Your task to perform on an android device: Open calendar and show me the first week of next month Image 0: 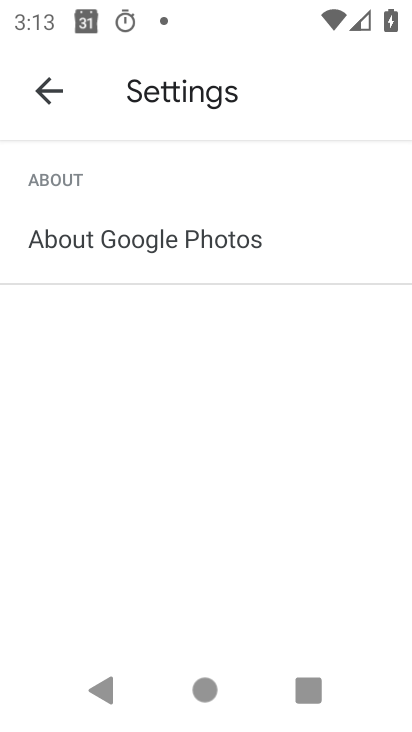
Step 0: press home button
Your task to perform on an android device: Open calendar and show me the first week of next month Image 1: 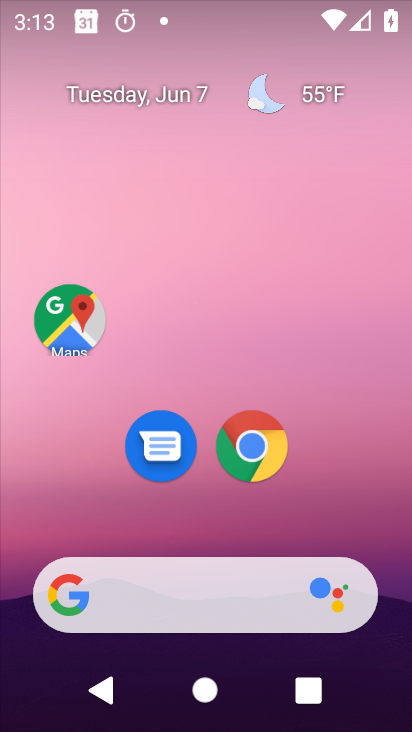
Step 1: drag from (206, 515) to (202, 11)
Your task to perform on an android device: Open calendar and show me the first week of next month Image 2: 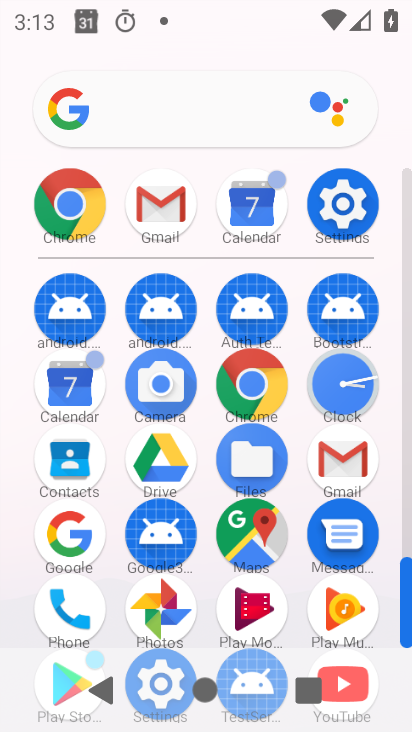
Step 2: click (74, 383)
Your task to perform on an android device: Open calendar and show me the first week of next month Image 3: 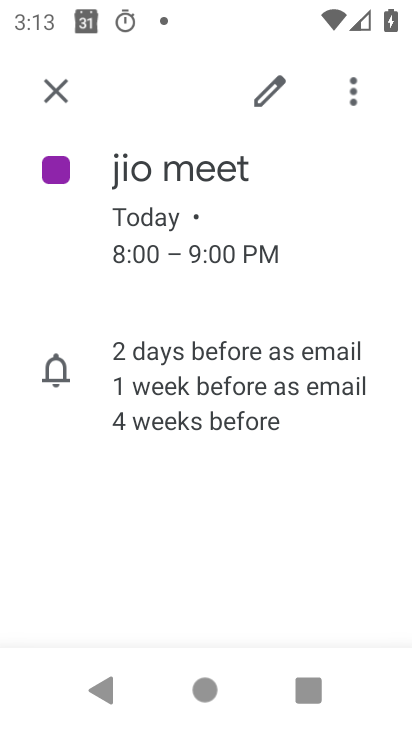
Step 3: click (45, 91)
Your task to perform on an android device: Open calendar and show me the first week of next month Image 4: 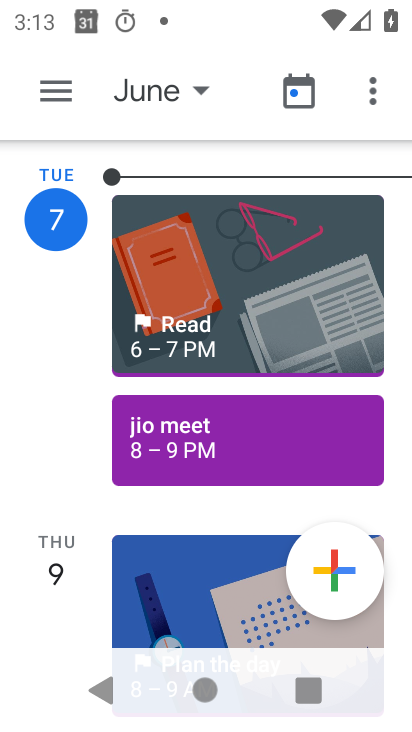
Step 4: click (46, 98)
Your task to perform on an android device: Open calendar and show me the first week of next month Image 5: 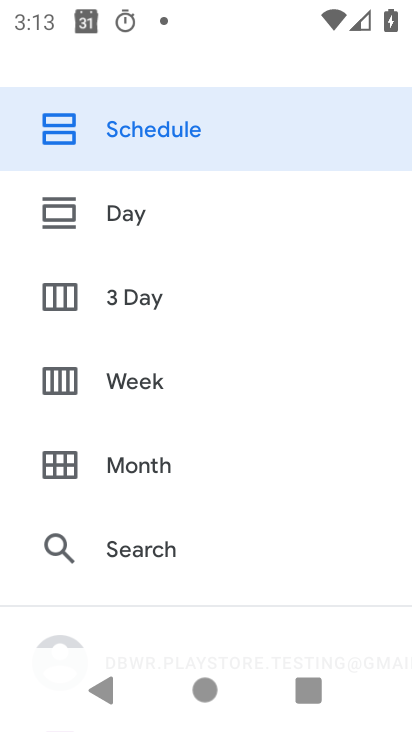
Step 5: click (152, 393)
Your task to perform on an android device: Open calendar and show me the first week of next month Image 6: 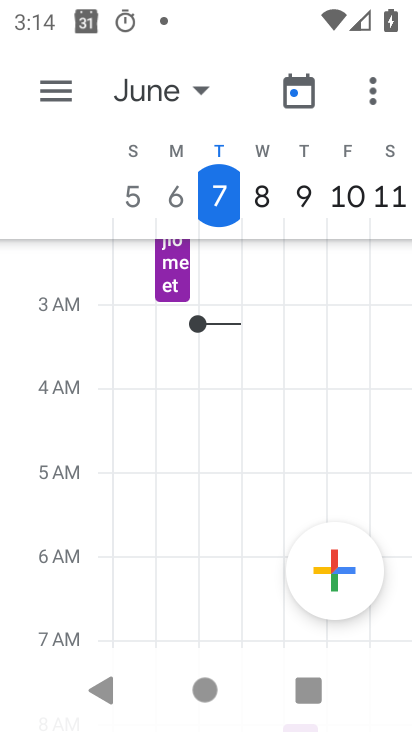
Step 6: click (185, 83)
Your task to perform on an android device: Open calendar and show me the first week of next month Image 7: 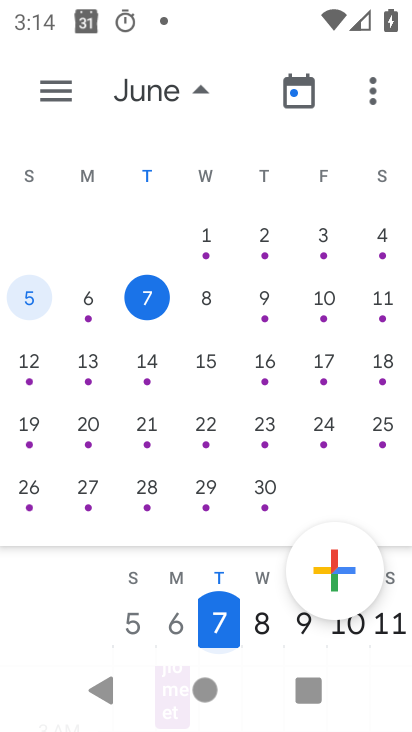
Step 7: drag from (326, 294) to (0, 250)
Your task to perform on an android device: Open calendar and show me the first week of next month Image 8: 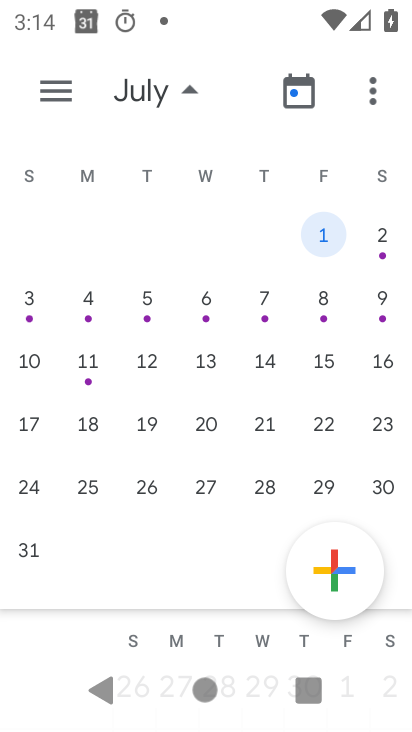
Step 8: click (30, 304)
Your task to perform on an android device: Open calendar and show me the first week of next month Image 9: 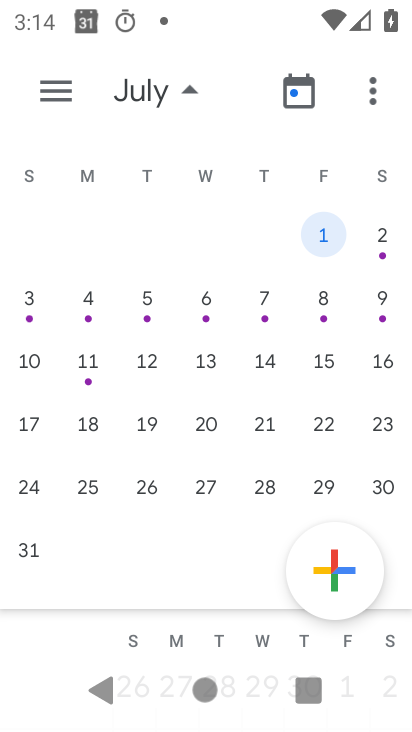
Step 9: click (35, 302)
Your task to perform on an android device: Open calendar and show me the first week of next month Image 10: 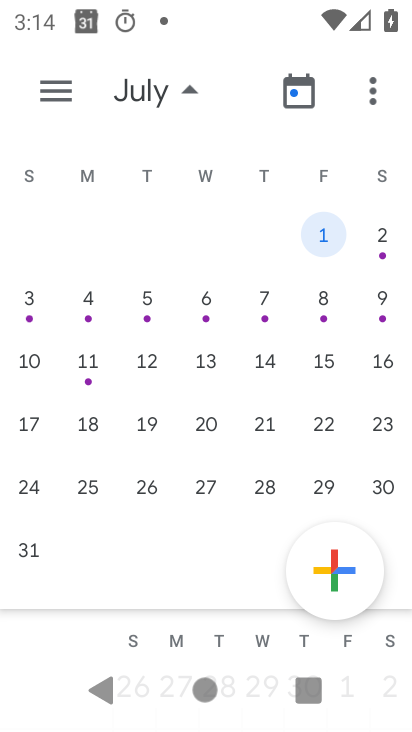
Step 10: click (35, 301)
Your task to perform on an android device: Open calendar and show me the first week of next month Image 11: 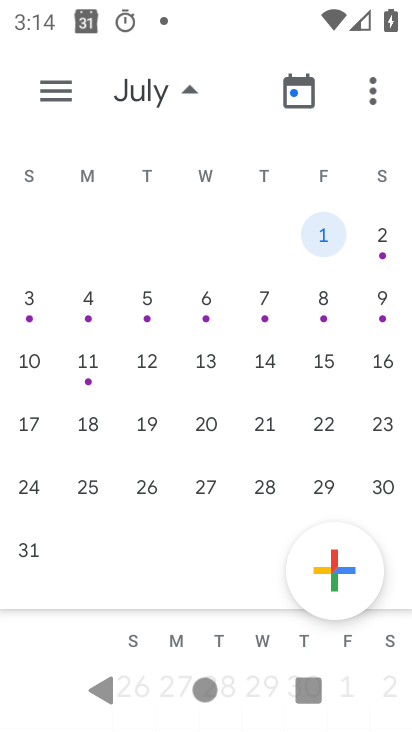
Step 11: click (36, 322)
Your task to perform on an android device: Open calendar and show me the first week of next month Image 12: 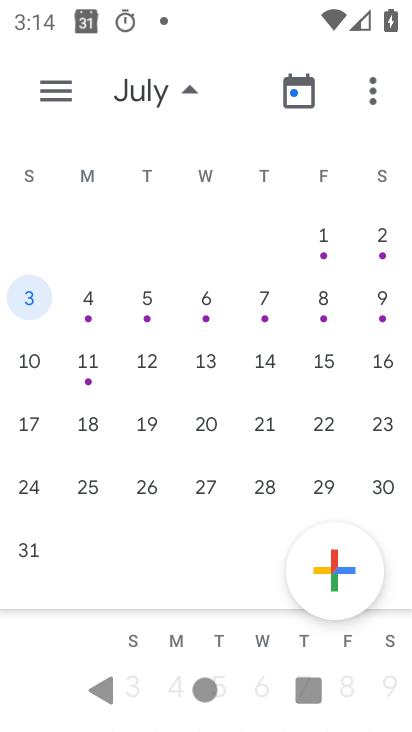
Step 12: click (60, 88)
Your task to perform on an android device: Open calendar and show me the first week of next month Image 13: 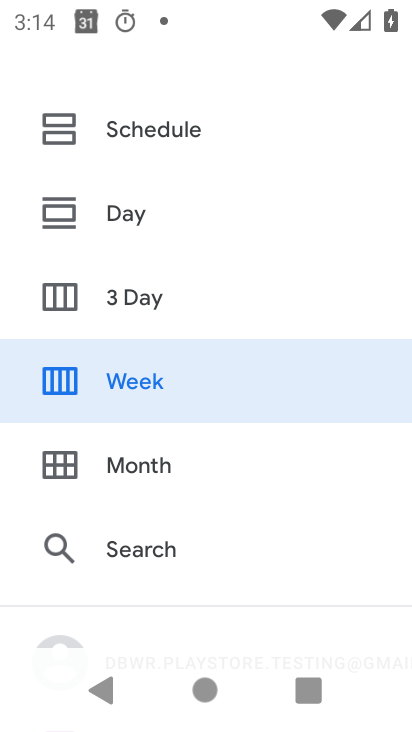
Step 13: click (157, 378)
Your task to perform on an android device: Open calendar and show me the first week of next month Image 14: 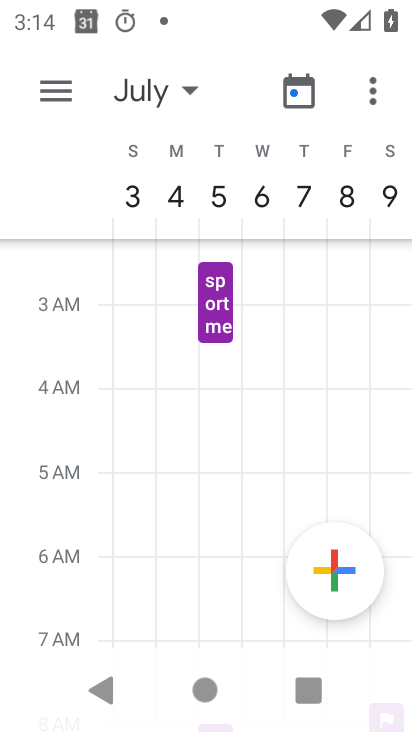
Step 14: task complete